Your task to perform on an android device: check google app version Image 0: 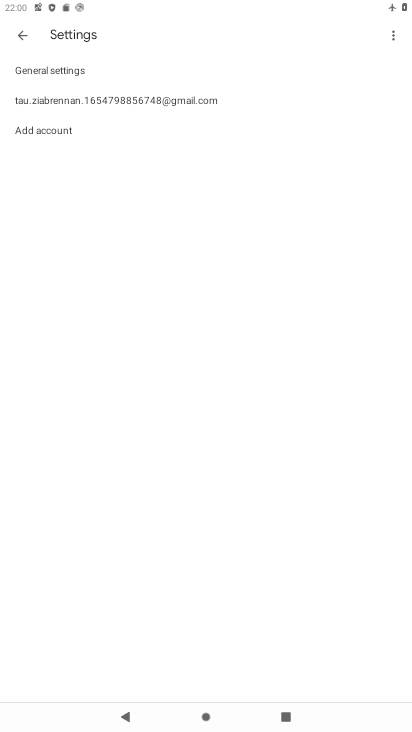
Step 0: click (154, 311)
Your task to perform on an android device: check google app version Image 1: 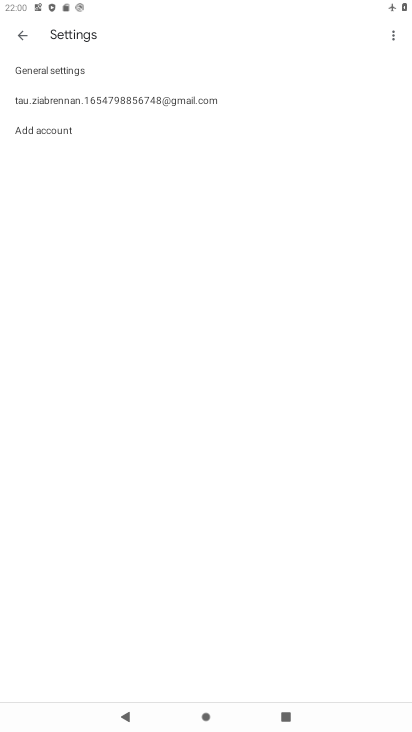
Step 1: click (142, 320)
Your task to perform on an android device: check google app version Image 2: 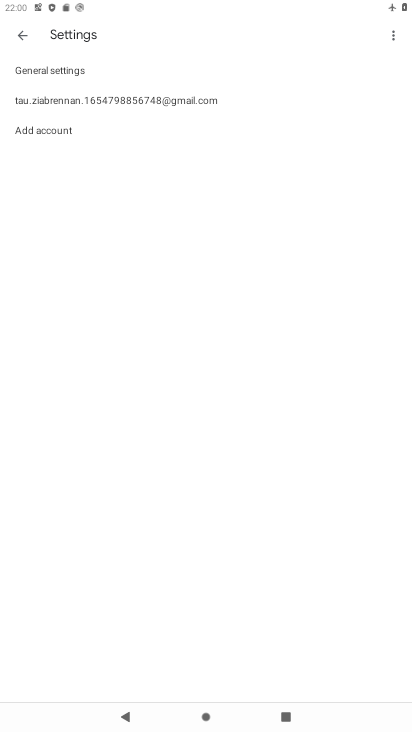
Step 2: press home button
Your task to perform on an android device: check google app version Image 3: 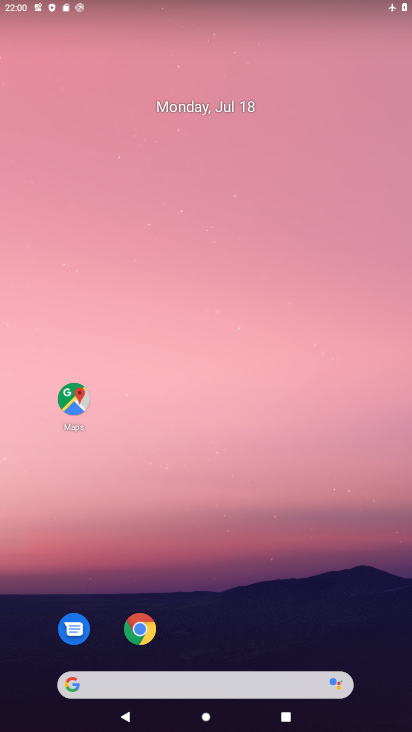
Step 3: drag from (325, 612) to (311, 86)
Your task to perform on an android device: check google app version Image 4: 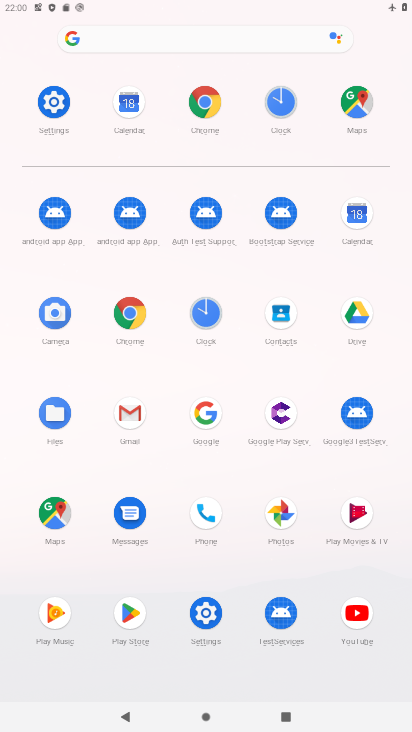
Step 4: click (220, 419)
Your task to perform on an android device: check google app version Image 5: 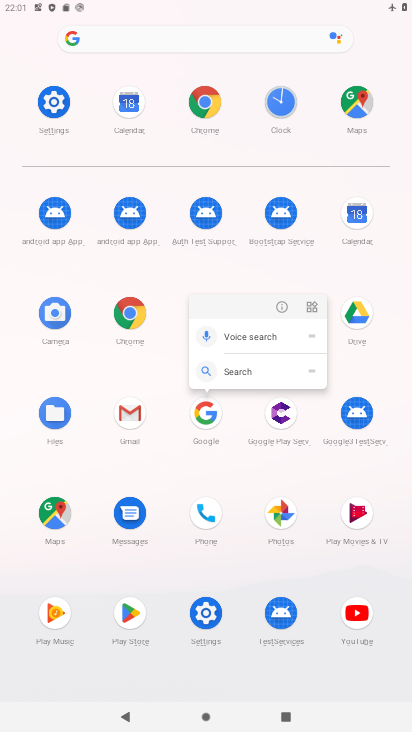
Step 5: click (280, 313)
Your task to perform on an android device: check google app version Image 6: 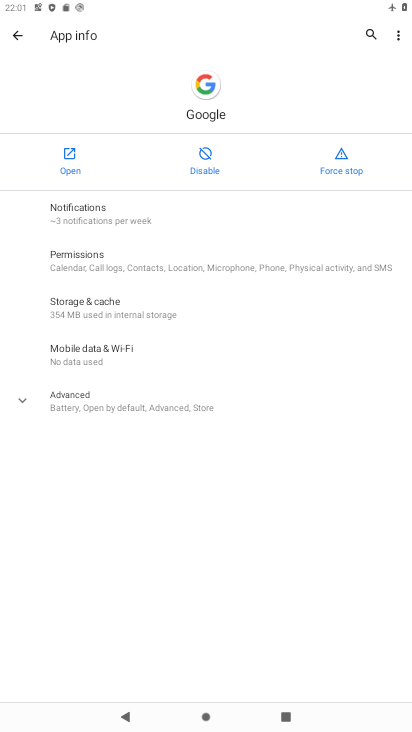
Step 6: click (77, 392)
Your task to perform on an android device: check google app version Image 7: 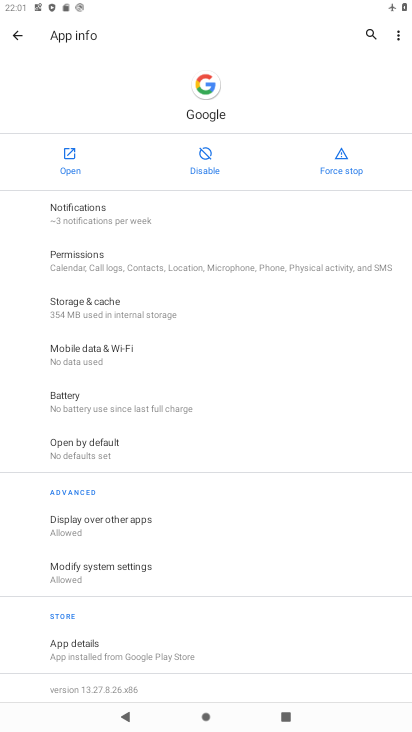
Step 7: task complete